Your task to perform on an android device: turn on priority inbox in the gmail app Image 0: 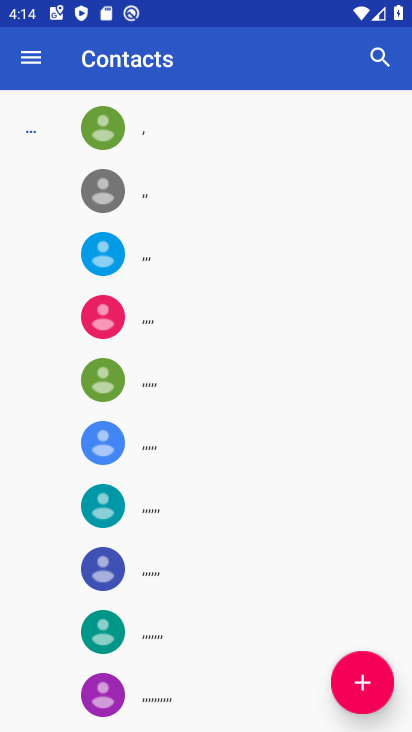
Step 0: press home button
Your task to perform on an android device: turn on priority inbox in the gmail app Image 1: 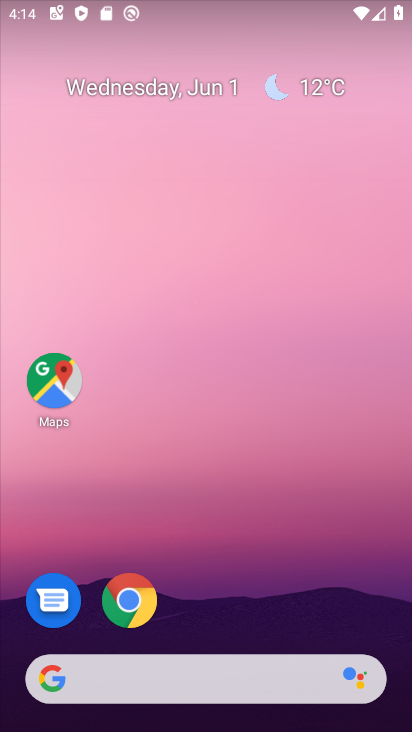
Step 1: drag from (386, 625) to (342, 122)
Your task to perform on an android device: turn on priority inbox in the gmail app Image 2: 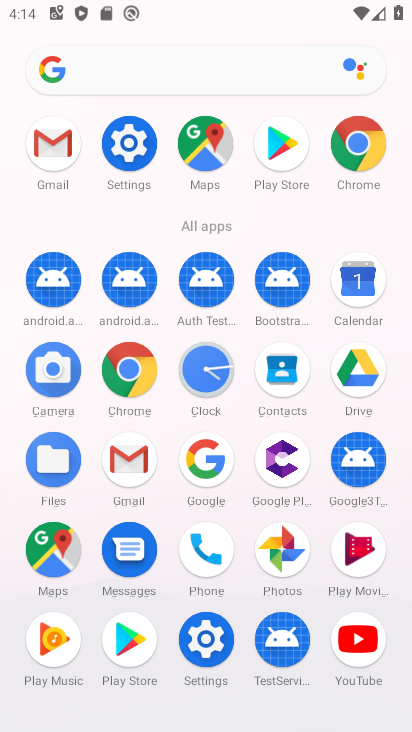
Step 2: click (129, 457)
Your task to perform on an android device: turn on priority inbox in the gmail app Image 3: 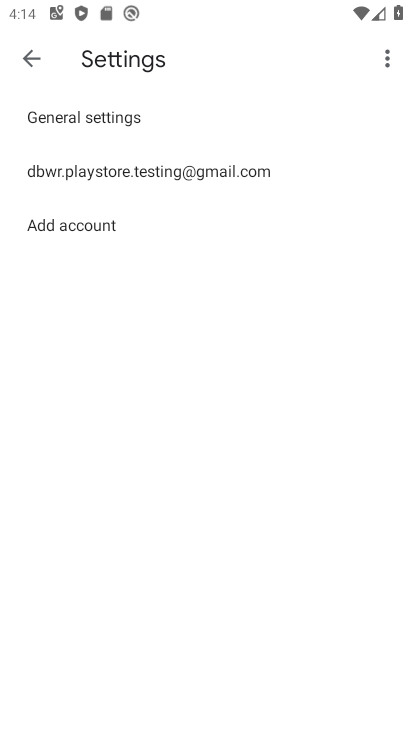
Step 3: click (111, 172)
Your task to perform on an android device: turn on priority inbox in the gmail app Image 4: 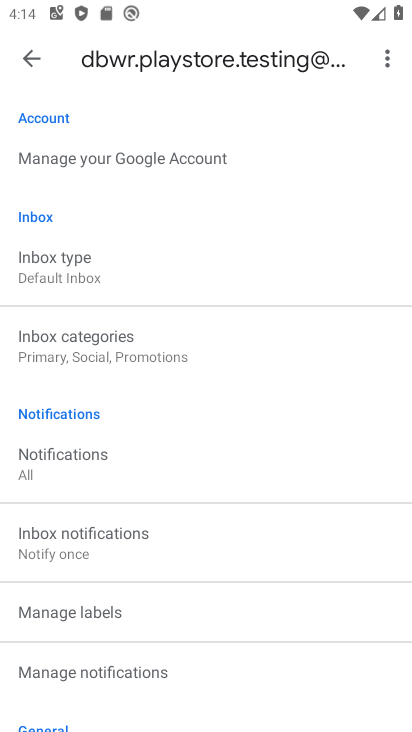
Step 4: click (40, 266)
Your task to perform on an android device: turn on priority inbox in the gmail app Image 5: 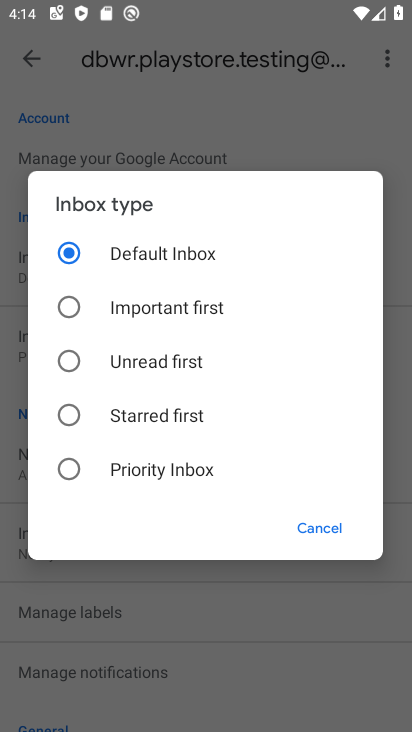
Step 5: click (72, 474)
Your task to perform on an android device: turn on priority inbox in the gmail app Image 6: 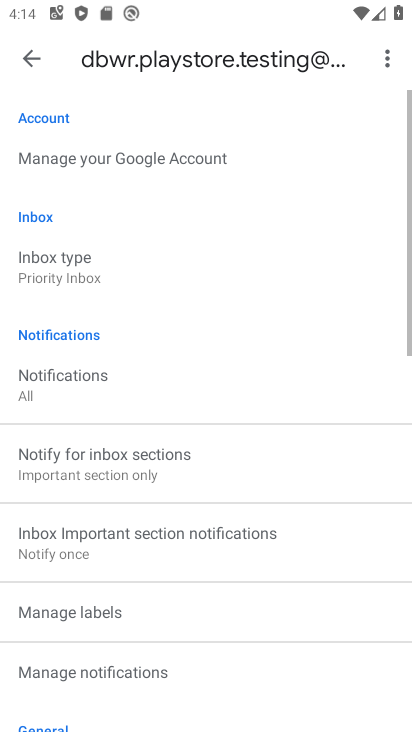
Step 6: task complete